Your task to perform on an android device: Open Amazon Image 0: 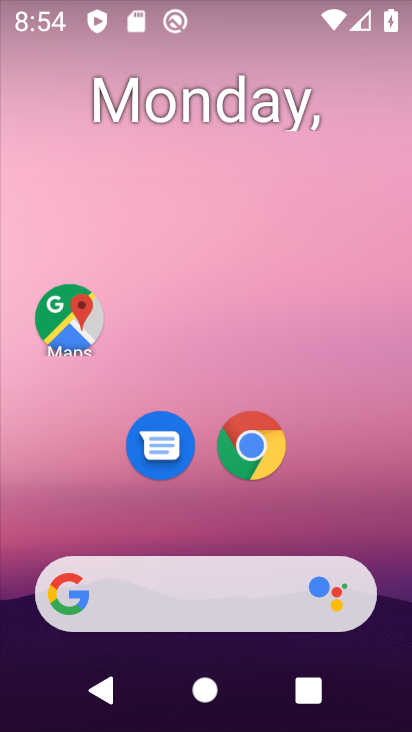
Step 0: drag from (366, 526) to (366, 226)
Your task to perform on an android device: Open Amazon Image 1: 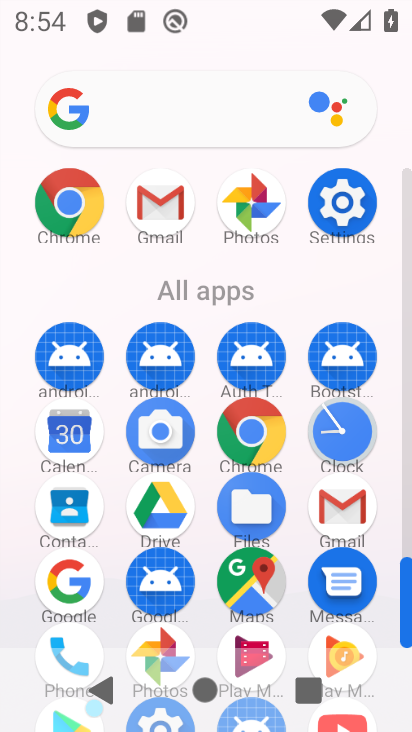
Step 1: click (236, 421)
Your task to perform on an android device: Open Amazon Image 2: 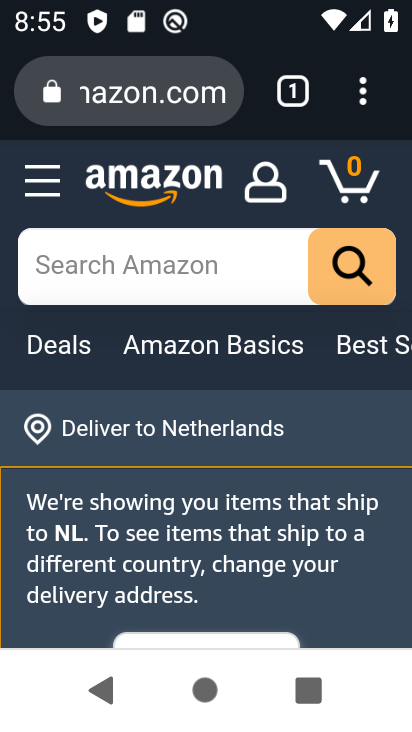
Step 2: task complete